Your task to perform on an android device: open chrome privacy settings Image 0: 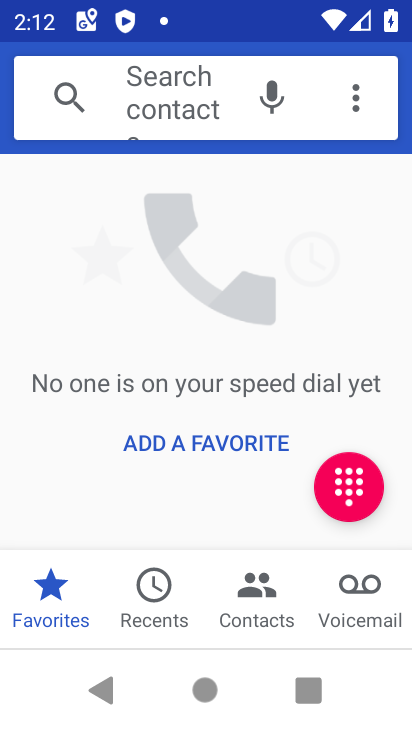
Step 0: press home button
Your task to perform on an android device: open chrome privacy settings Image 1: 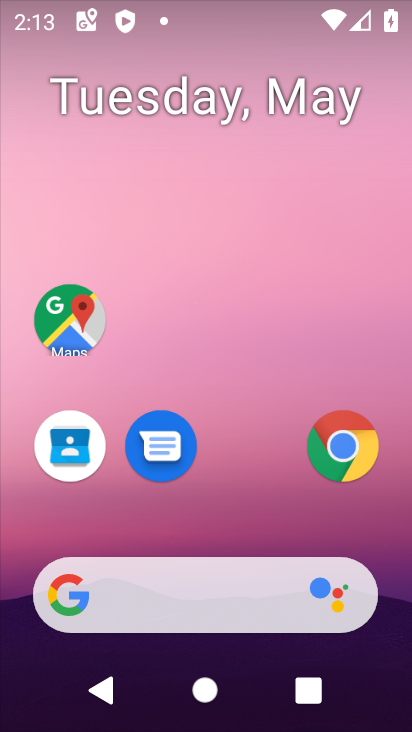
Step 1: click (345, 457)
Your task to perform on an android device: open chrome privacy settings Image 2: 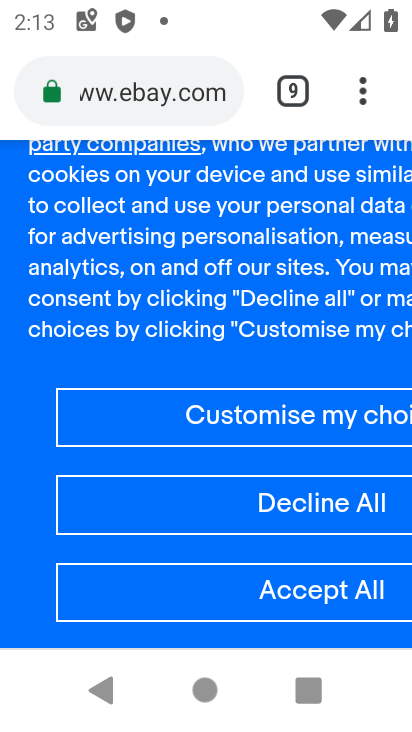
Step 2: click (362, 97)
Your task to perform on an android device: open chrome privacy settings Image 3: 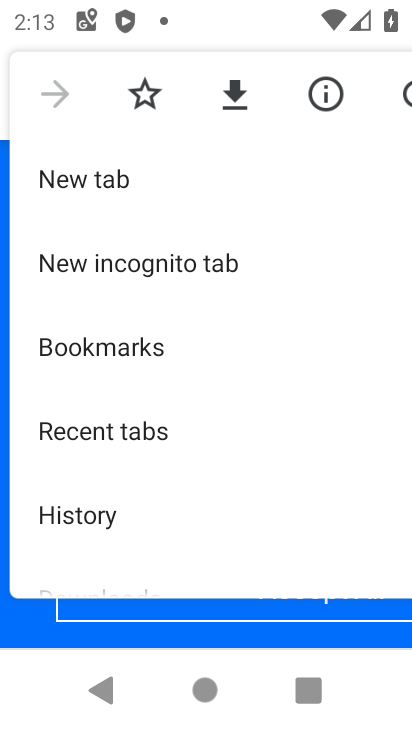
Step 3: drag from (202, 479) to (191, 141)
Your task to perform on an android device: open chrome privacy settings Image 4: 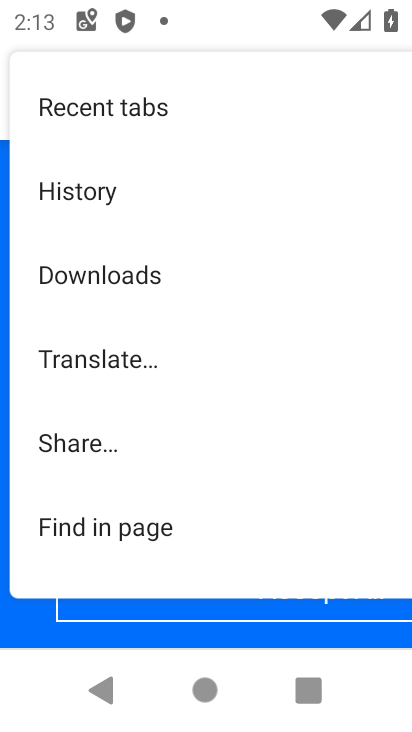
Step 4: drag from (147, 498) to (144, 160)
Your task to perform on an android device: open chrome privacy settings Image 5: 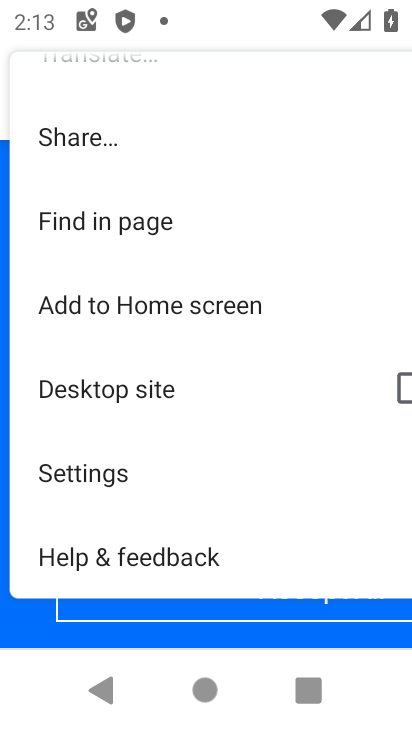
Step 5: click (138, 485)
Your task to perform on an android device: open chrome privacy settings Image 6: 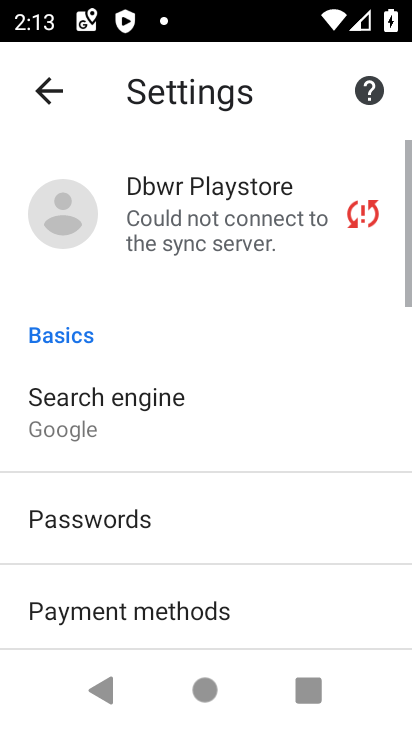
Step 6: drag from (138, 485) to (147, 181)
Your task to perform on an android device: open chrome privacy settings Image 7: 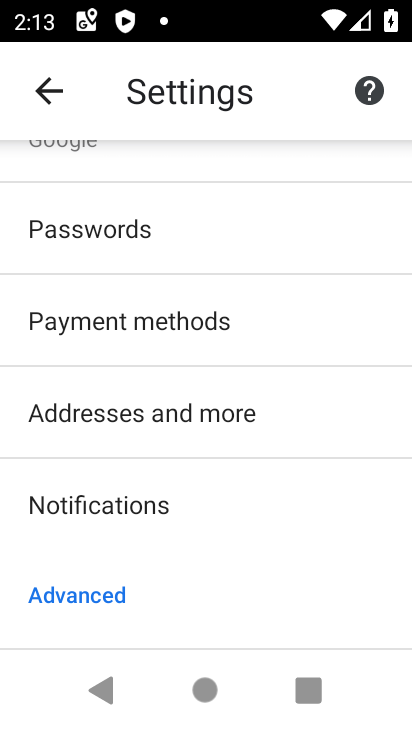
Step 7: drag from (171, 587) to (154, 211)
Your task to perform on an android device: open chrome privacy settings Image 8: 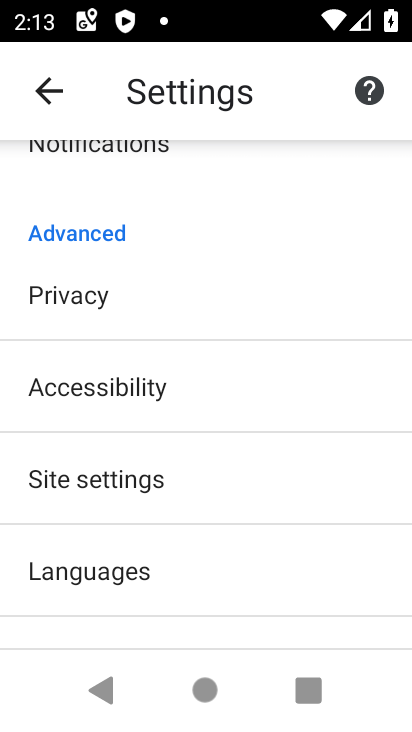
Step 8: click (92, 294)
Your task to perform on an android device: open chrome privacy settings Image 9: 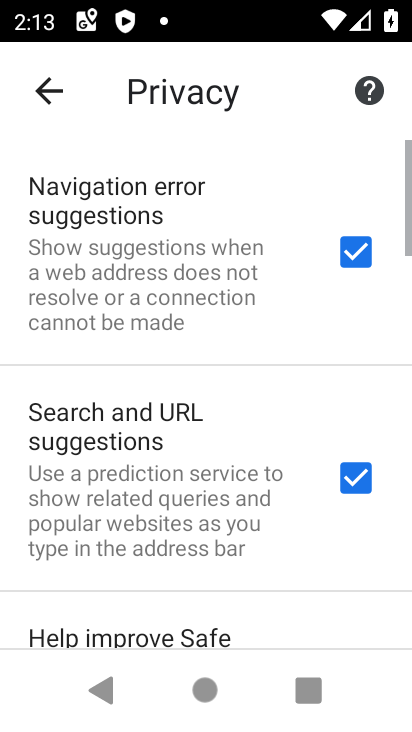
Step 9: task complete